Your task to perform on an android device: toggle notification dots Image 0: 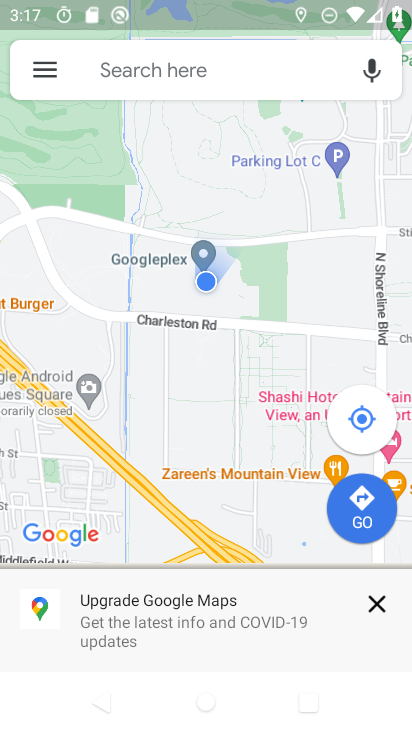
Step 0: press back button
Your task to perform on an android device: toggle notification dots Image 1: 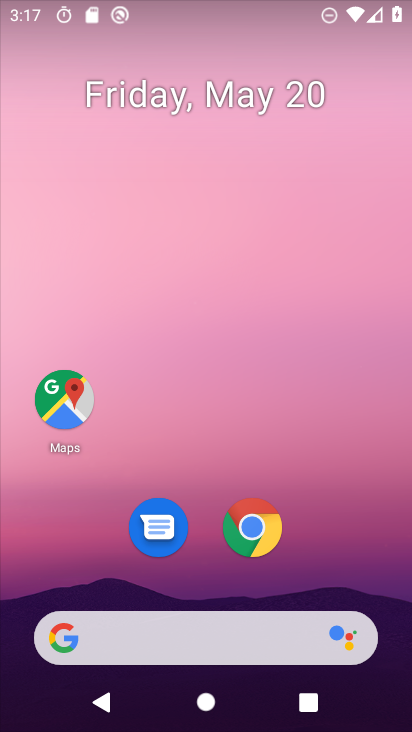
Step 1: drag from (120, 580) to (266, 139)
Your task to perform on an android device: toggle notification dots Image 2: 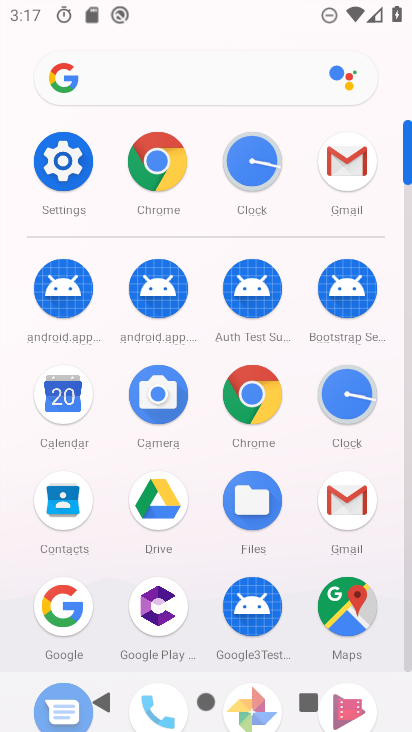
Step 2: click (58, 163)
Your task to perform on an android device: toggle notification dots Image 3: 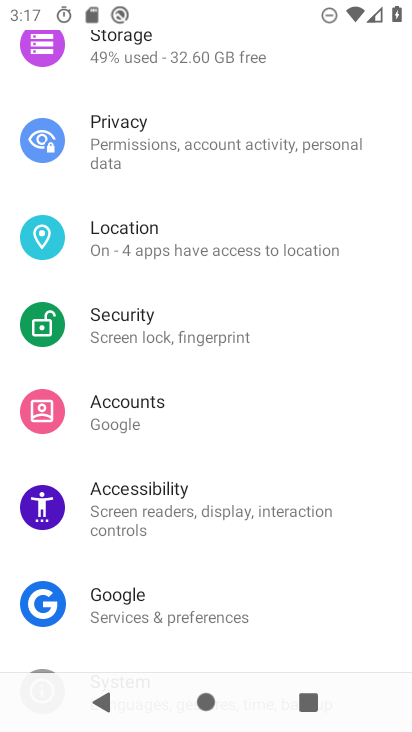
Step 3: drag from (260, 162) to (185, 630)
Your task to perform on an android device: toggle notification dots Image 4: 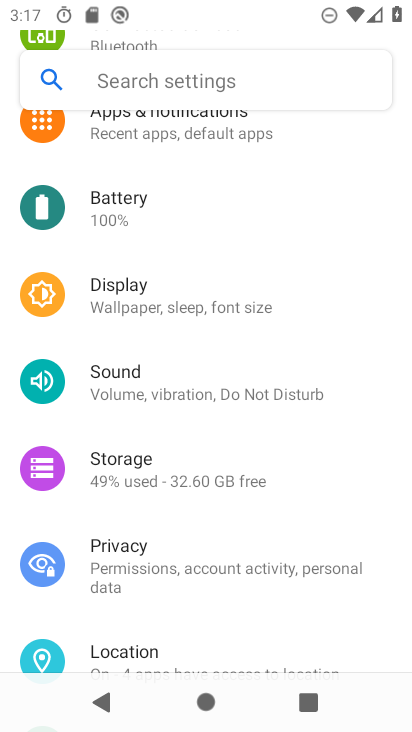
Step 4: click (188, 113)
Your task to perform on an android device: toggle notification dots Image 5: 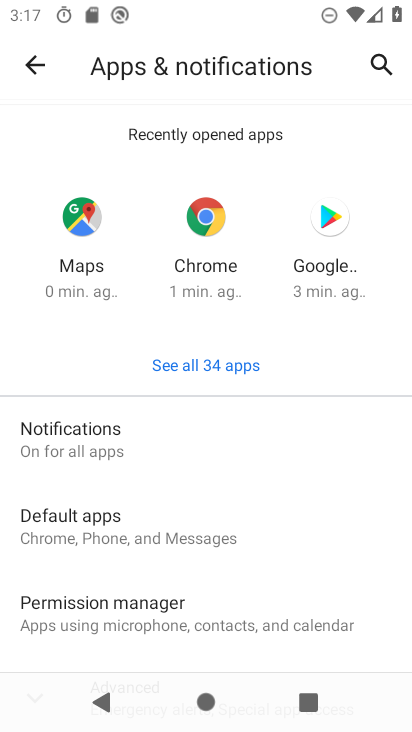
Step 5: click (90, 430)
Your task to perform on an android device: toggle notification dots Image 6: 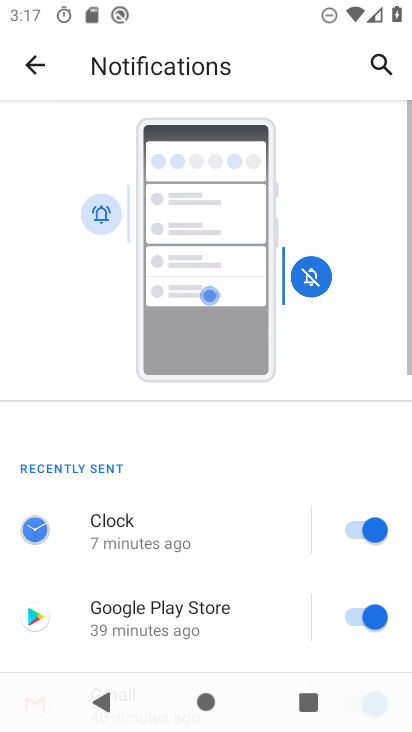
Step 6: drag from (127, 570) to (175, 29)
Your task to perform on an android device: toggle notification dots Image 7: 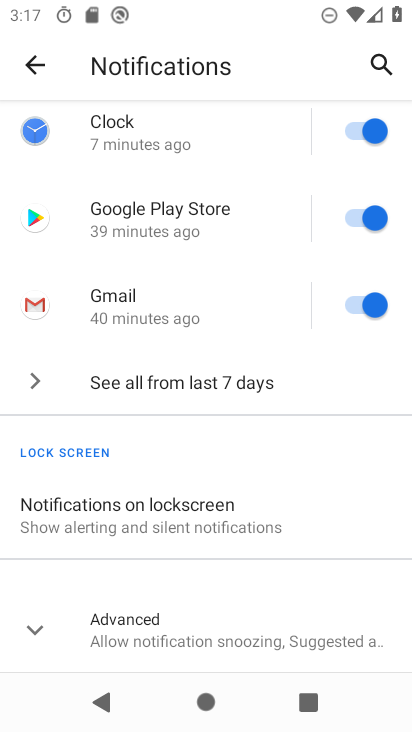
Step 7: drag from (155, 621) to (249, 41)
Your task to perform on an android device: toggle notification dots Image 8: 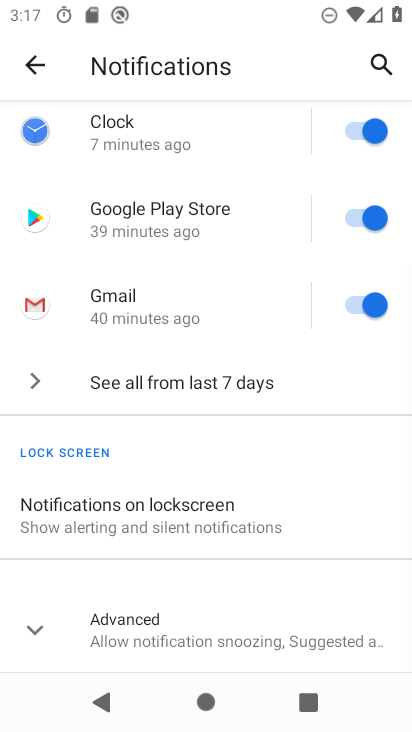
Step 8: click (134, 631)
Your task to perform on an android device: toggle notification dots Image 9: 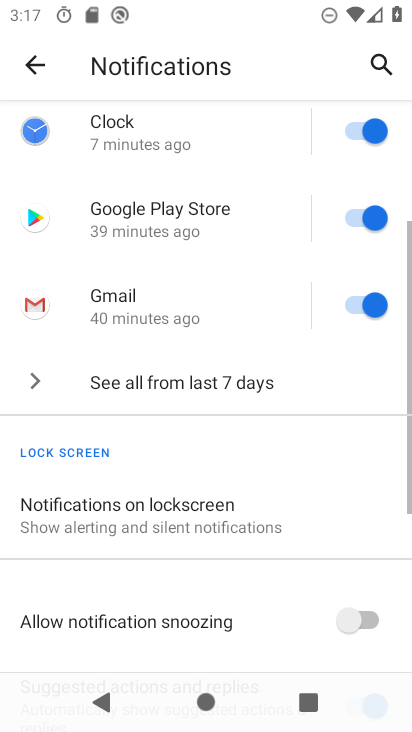
Step 9: drag from (205, 632) to (275, 96)
Your task to perform on an android device: toggle notification dots Image 10: 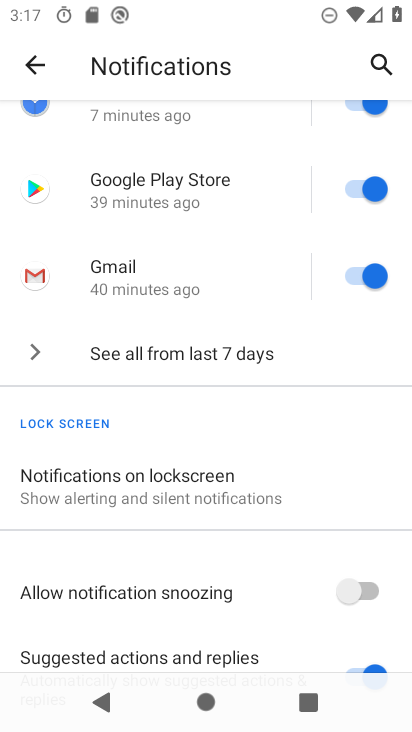
Step 10: drag from (205, 591) to (195, 150)
Your task to perform on an android device: toggle notification dots Image 11: 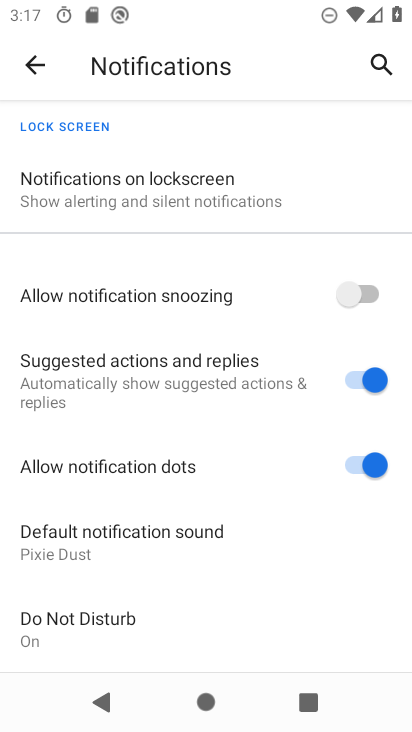
Step 11: click (361, 470)
Your task to perform on an android device: toggle notification dots Image 12: 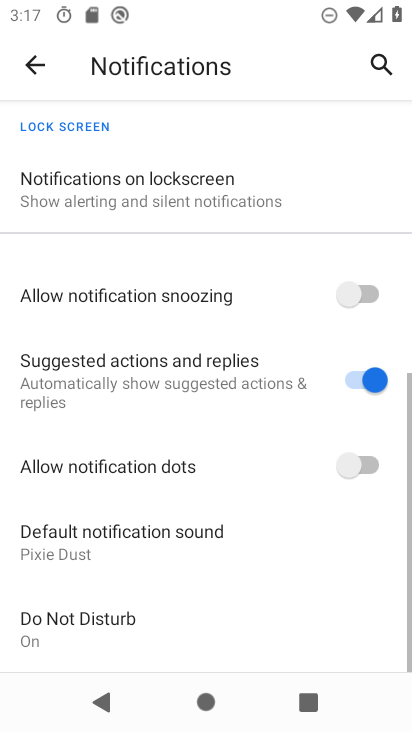
Step 12: task complete